Your task to perform on an android device: Open calendar and show me the first week of next month Image 0: 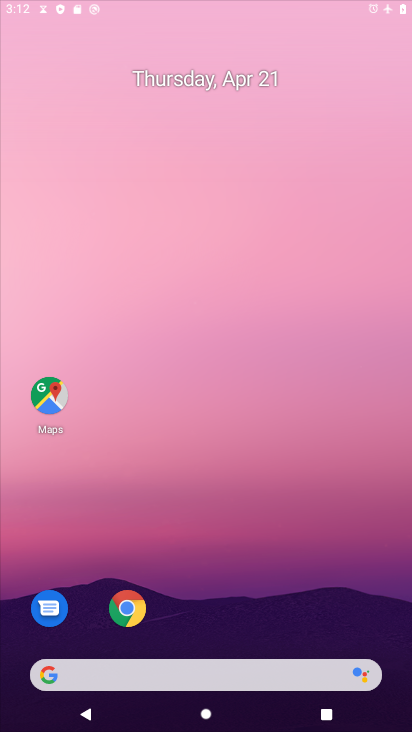
Step 0: press home button
Your task to perform on an android device: Open calendar and show me the first week of next month Image 1: 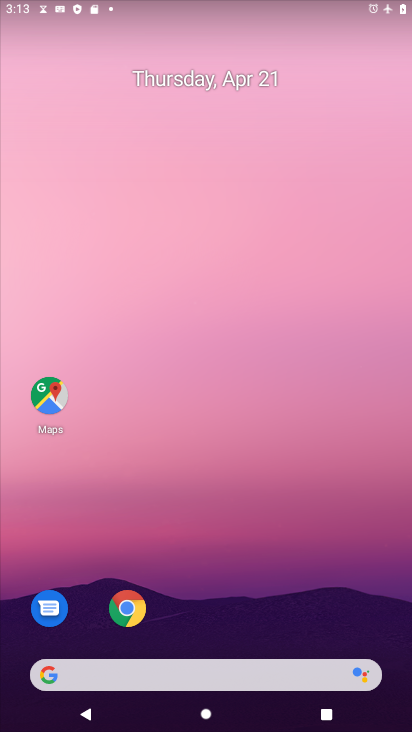
Step 1: drag from (256, 604) to (257, 123)
Your task to perform on an android device: Open calendar and show me the first week of next month Image 2: 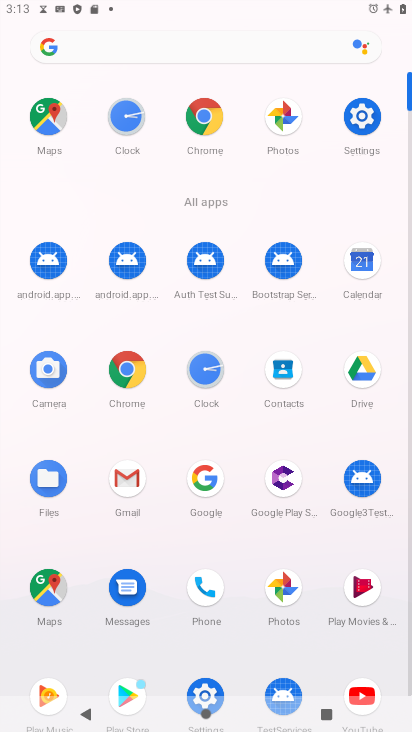
Step 2: click (368, 270)
Your task to perform on an android device: Open calendar and show me the first week of next month Image 3: 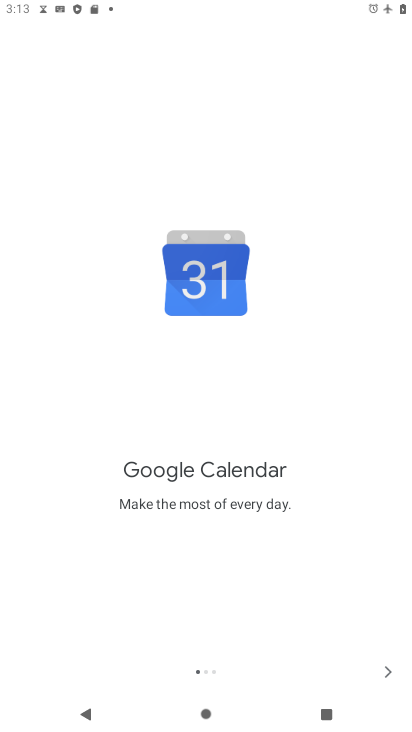
Step 3: click (385, 666)
Your task to perform on an android device: Open calendar and show me the first week of next month Image 4: 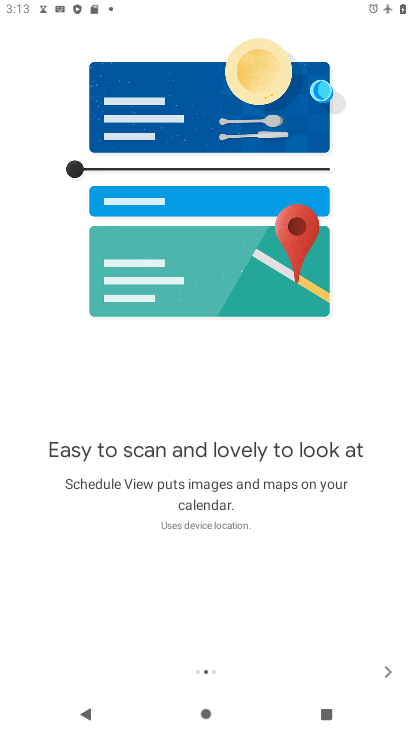
Step 4: click (382, 671)
Your task to perform on an android device: Open calendar and show me the first week of next month Image 5: 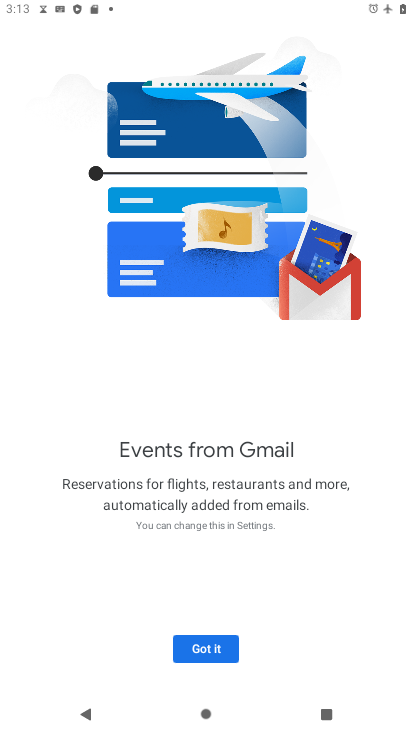
Step 5: click (212, 653)
Your task to perform on an android device: Open calendar and show me the first week of next month Image 6: 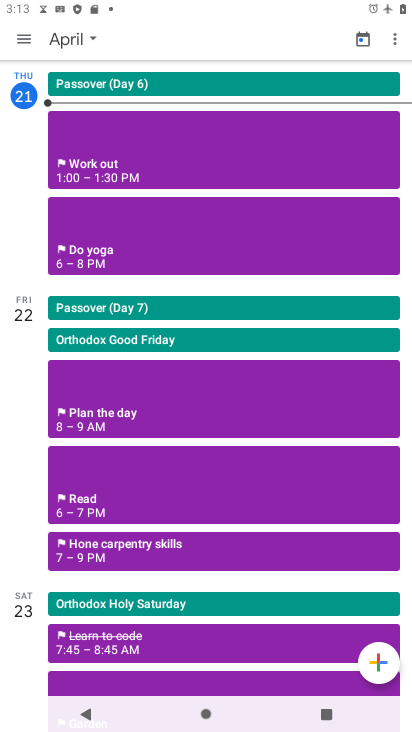
Step 6: click (25, 37)
Your task to perform on an android device: Open calendar and show me the first week of next month Image 7: 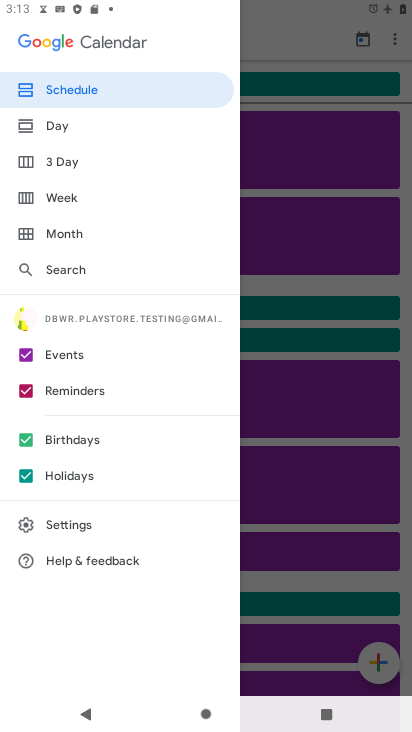
Step 7: click (112, 202)
Your task to perform on an android device: Open calendar and show me the first week of next month Image 8: 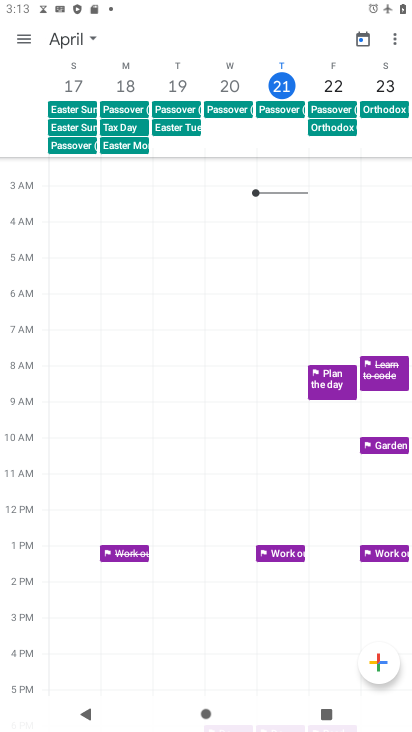
Step 8: click (89, 29)
Your task to perform on an android device: Open calendar and show me the first week of next month Image 9: 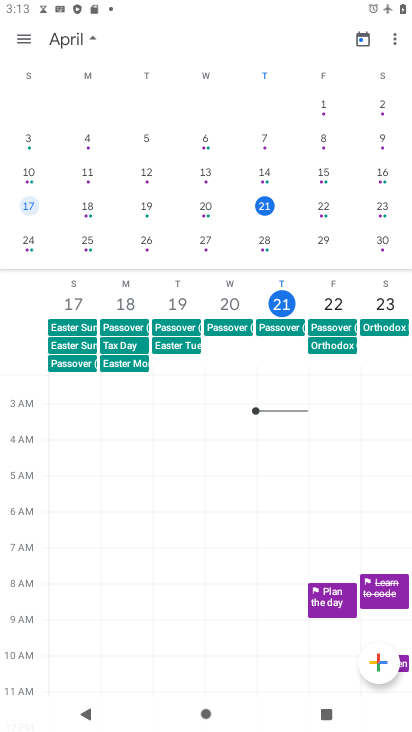
Step 9: drag from (371, 194) to (4, 200)
Your task to perform on an android device: Open calendar and show me the first week of next month Image 10: 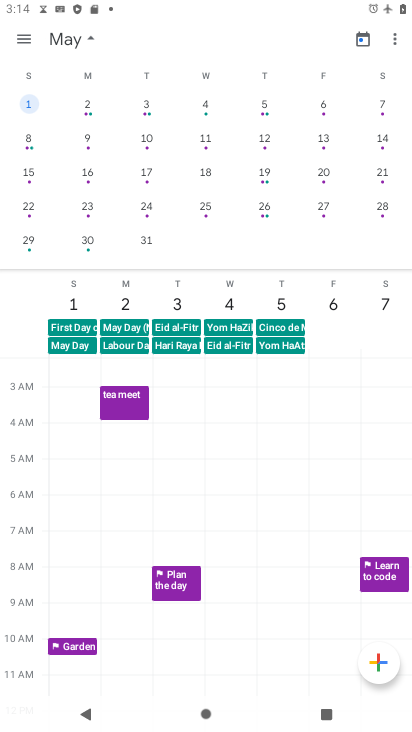
Step 10: click (139, 111)
Your task to perform on an android device: Open calendar and show me the first week of next month Image 11: 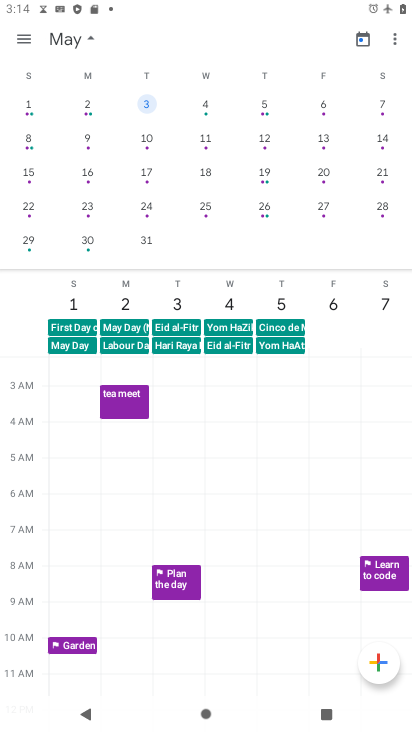
Step 11: click (93, 40)
Your task to perform on an android device: Open calendar and show me the first week of next month Image 12: 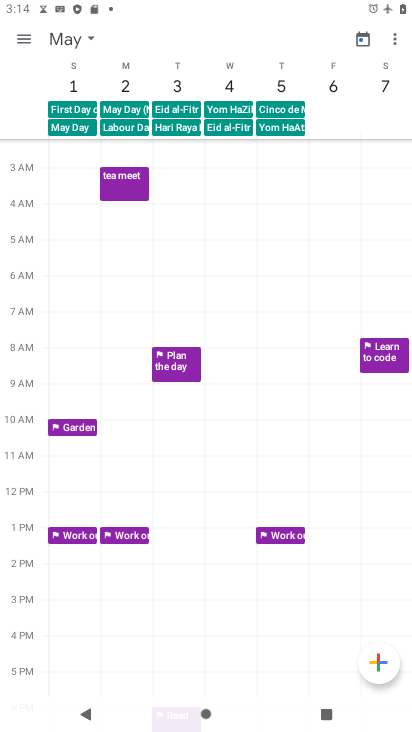
Step 12: task complete